Your task to perform on an android device: Open Chrome and go to settings Image 0: 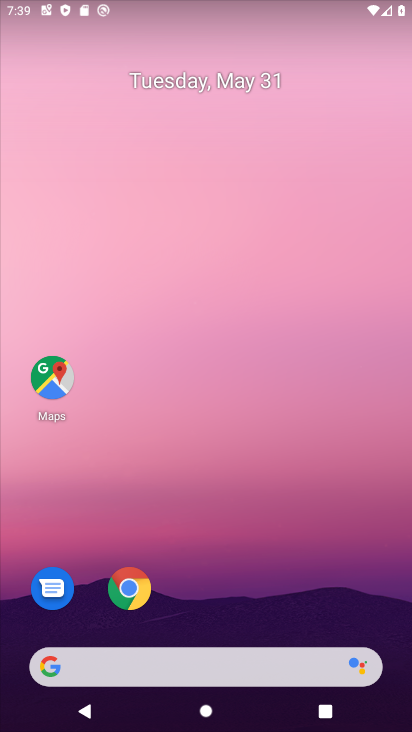
Step 0: click (141, 597)
Your task to perform on an android device: Open Chrome and go to settings Image 1: 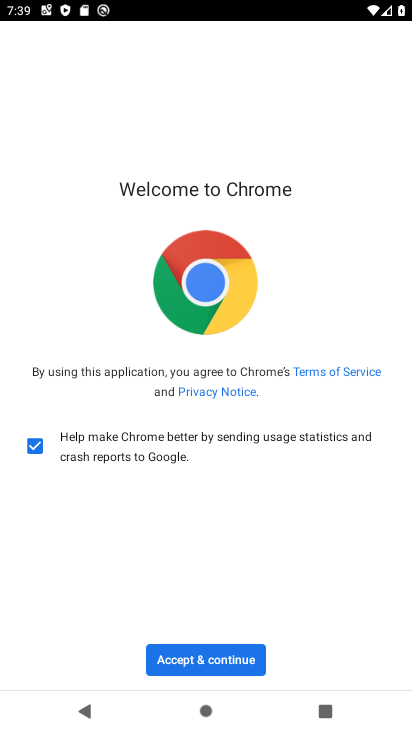
Step 1: click (222, 666)
Your task to perform on an android device: Open Chrome and go to settings Image 2: 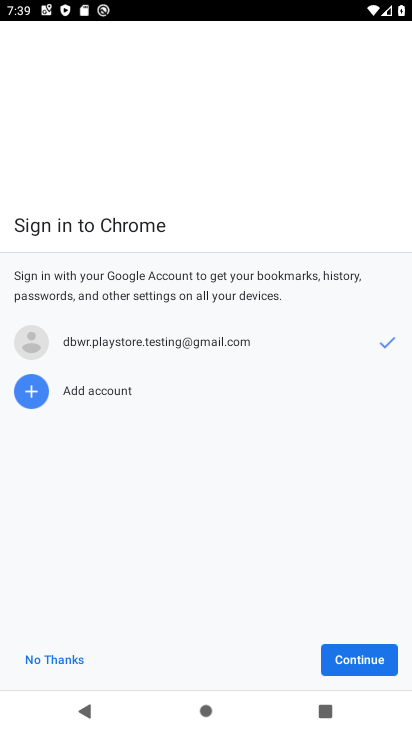
Step 2: click (368, 665)
Your task to perform on an android device: Open Chrome and go to settings Image 3: 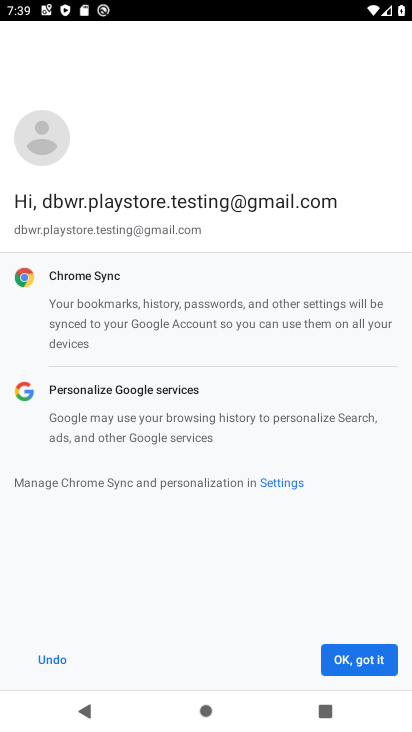
Step 3: click (368, 665)
Your task to perform on an android device: Open Chrome and go to settings Image 4: 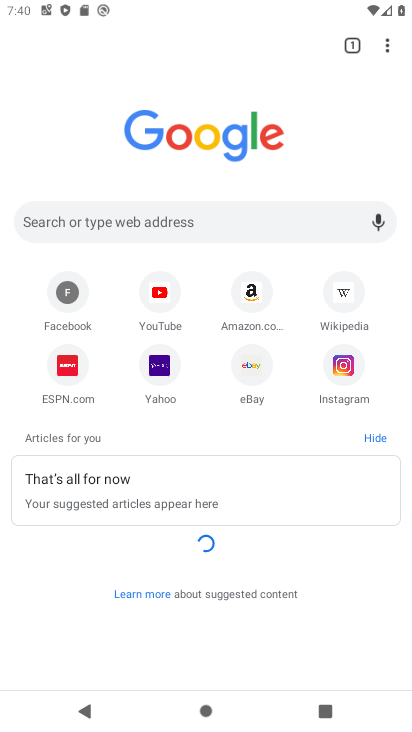
Step 4: click (391, 43)
Your task to perform on an android device: Open Chrome and go to settings Image 5: 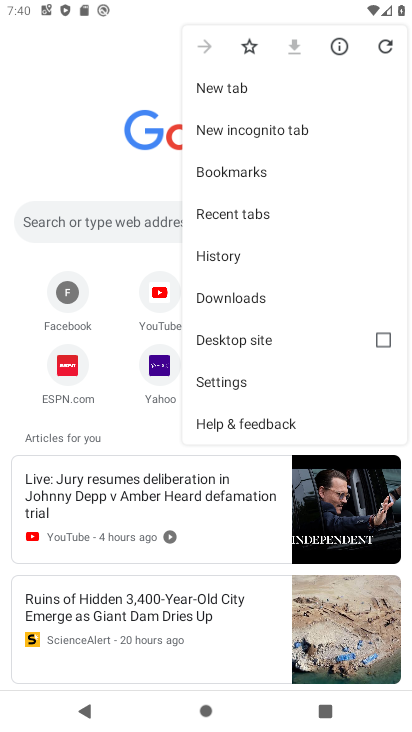
Step 5: click (225, 381)
Your task to perform on an android device: Open Chrome and go to settings Image 6: 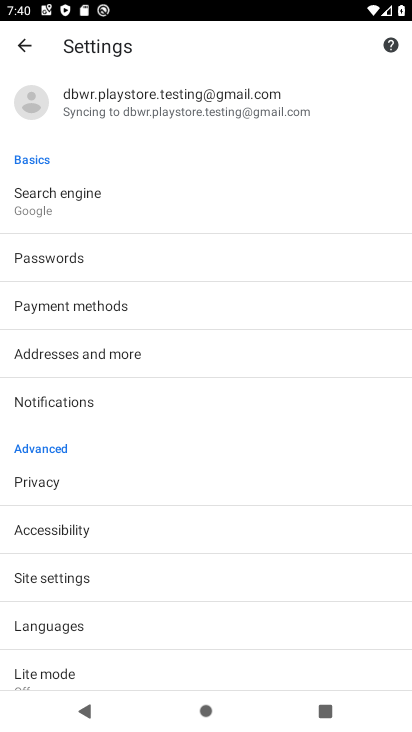
Step 6: task complete